Your task to perform on an android device: show emergency info Image 0: 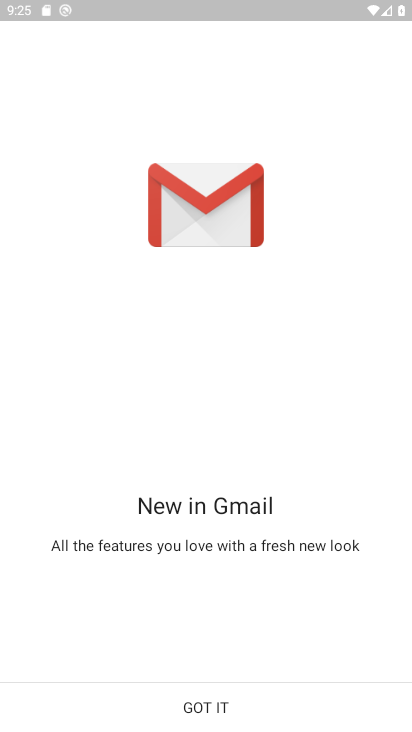
Step 0: press home button
Your task to perform on an android device: show emergency info Image 1: 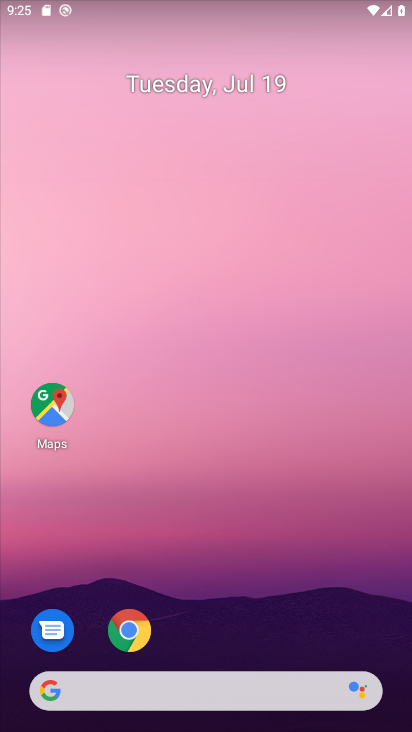
Step 1: drag from (210, 623) to (70, 105)
Your task to perform on an android device: show emergency info Image 2: 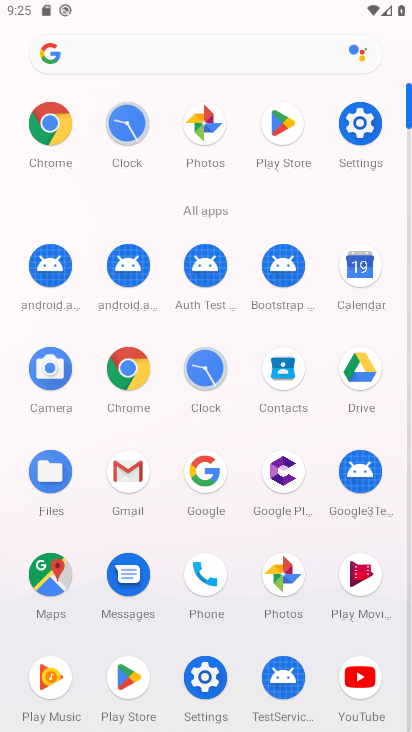
Step 2: click (200, 684)
Your task to perform on an android device: show emergency info Image 3: 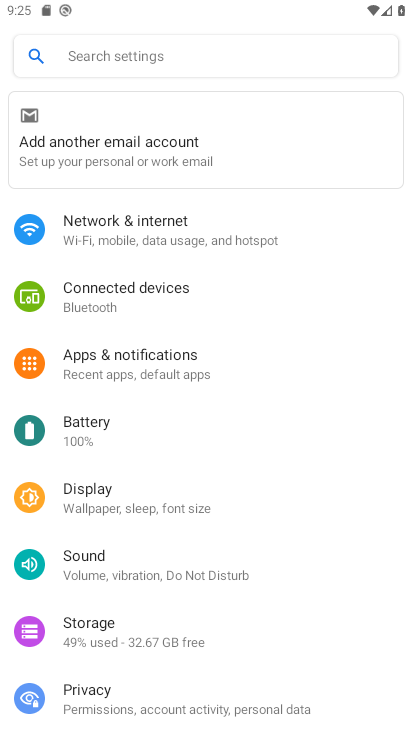
Step 3: drag from (159, 648) to (191, 96)
Your task to perform on an android device: show emergency info Image 4: 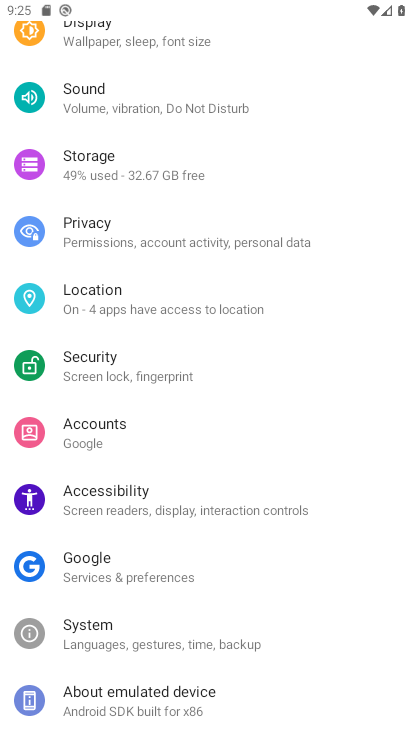
Step 4: drag from (154, 697) to (187, 200)
Your task to perform on an android device: show emergency info Image 5: 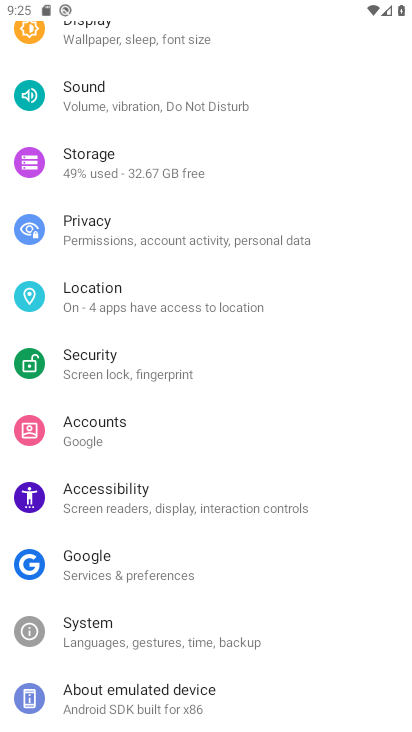
Step 5: click (99, 693)
Your task to perform on an android device: show emergency info Image 6: 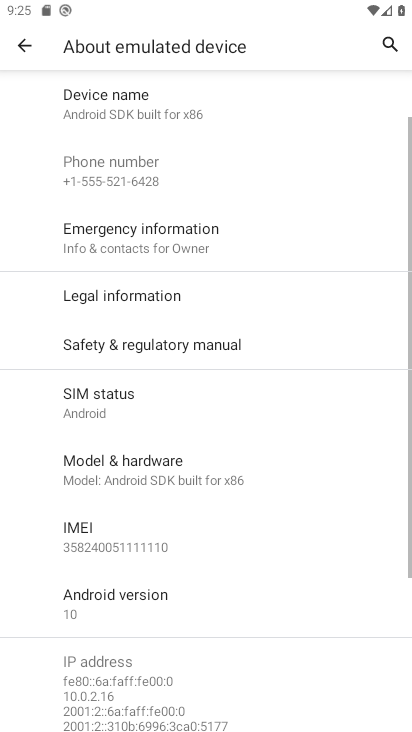
Step 6: click (135, 233)
Your task to perform on an android device: show emergency info Image 7: 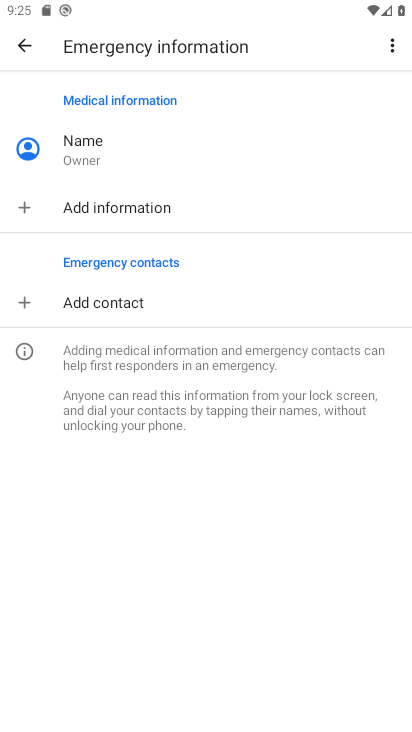
Step 7: task complete